Your task to perform on an android device: turn off sleep mode Image 0: 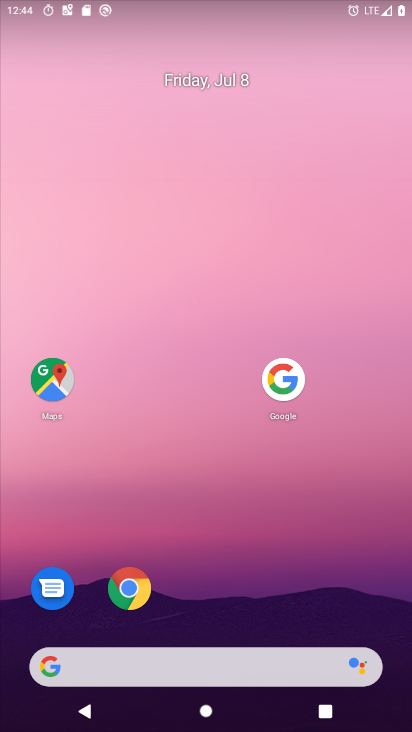
Step 0: drag from (176, 616) to (305, 160)
Your task to perform on an android device: turn off sleep mode Image 1: 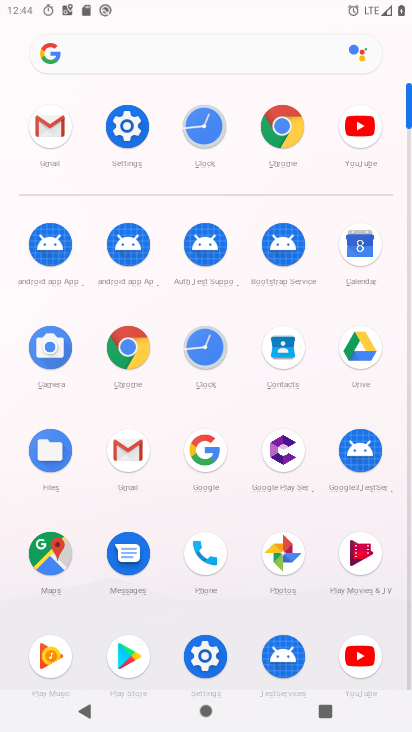
Step 1: click (136, 131)
Your task to perform on an android device: turn off sleep mode Image 2: 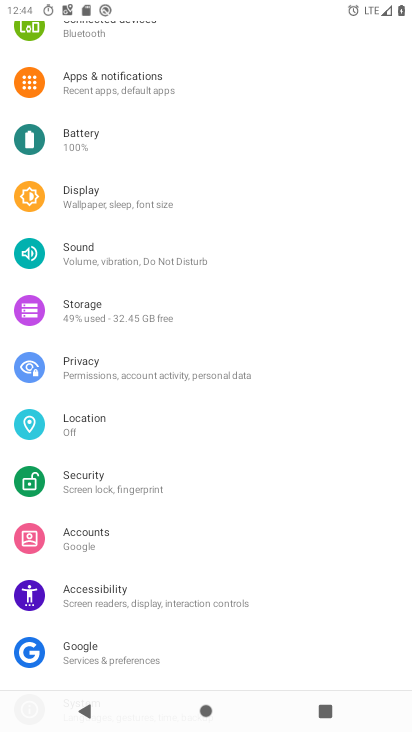
Step 2: drag from (209, 166) to (214, 494)
Your task to perform on an android device: turn off sleep mode Image 3: 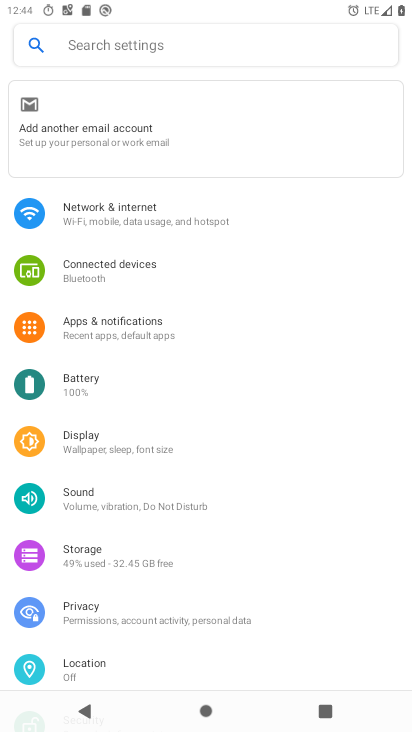
Step 3: click (111, 443)
Your task to perform on an android device: turn off sleep mode Image 4: 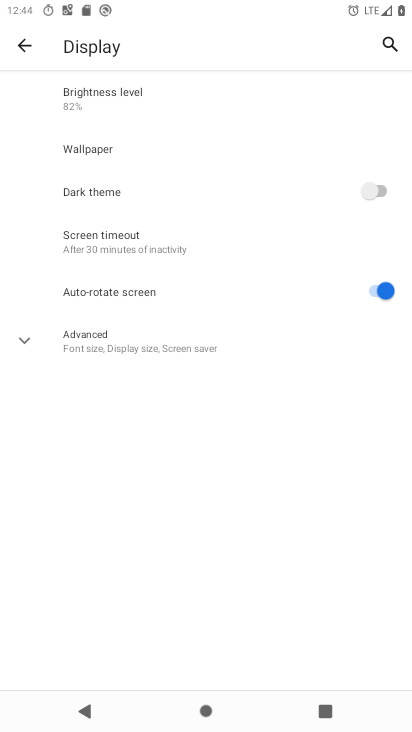
Step 4: click (113, 346)
Your task to perform on an android device: turn off sleep mode Image 5: 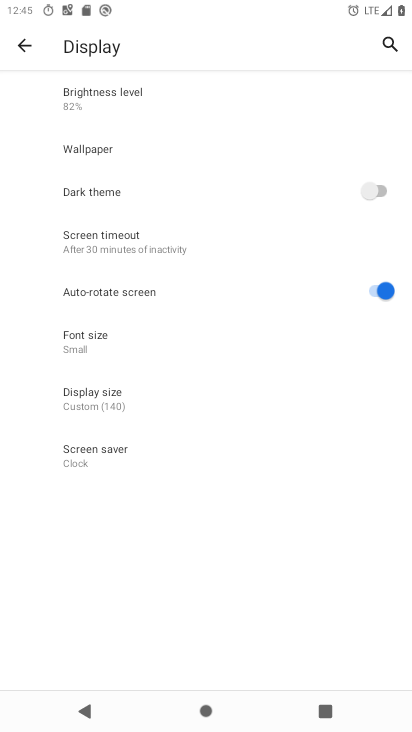
Step 5: task complete